Your task to perform on an android device: find photos in the google photos app Image 0: 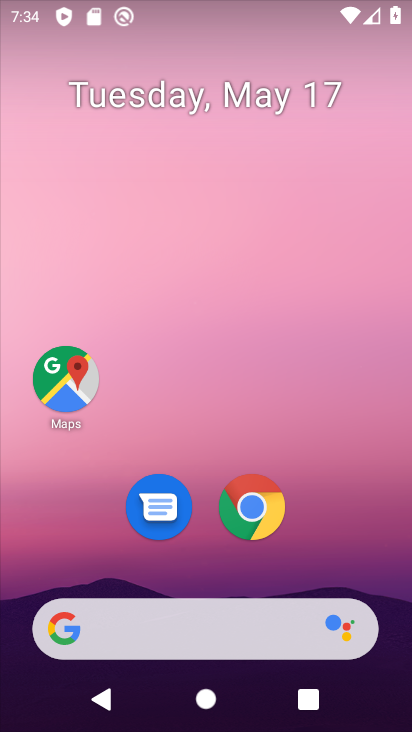
Step 0: drag from (358, 583) to (286, 10)
Your task to perform on an android device: find photos in the google photos app Image 1: 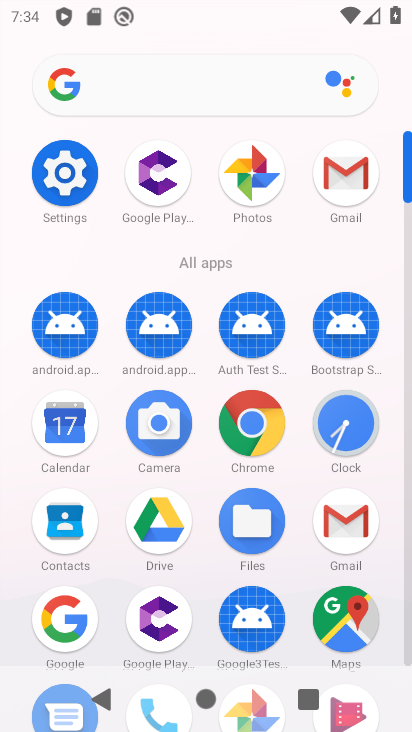
Step 1: click (249, 188)
Your task to perform on an android device: find photos in the google photos app Image 2: 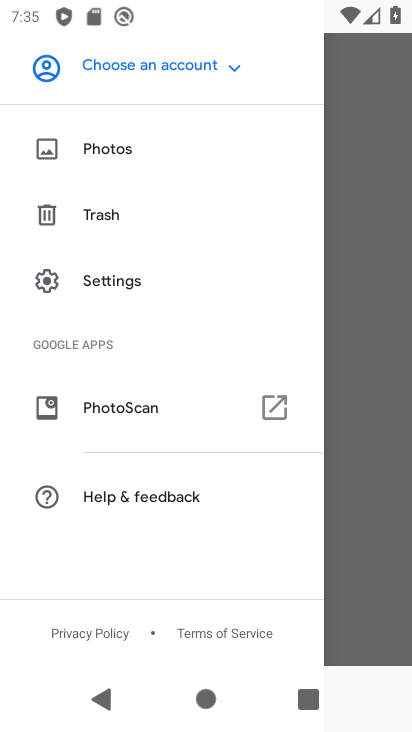
Step 2: click (96, 153)
Your task to perform on an android device: find photos in the google photos app Image 3: 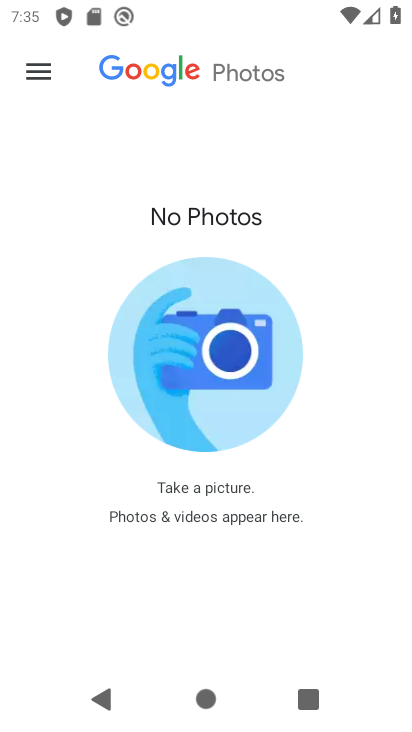
Step 3: task complete